Your task to perform on an android device: search for starred emails in the gmail app Image 0: 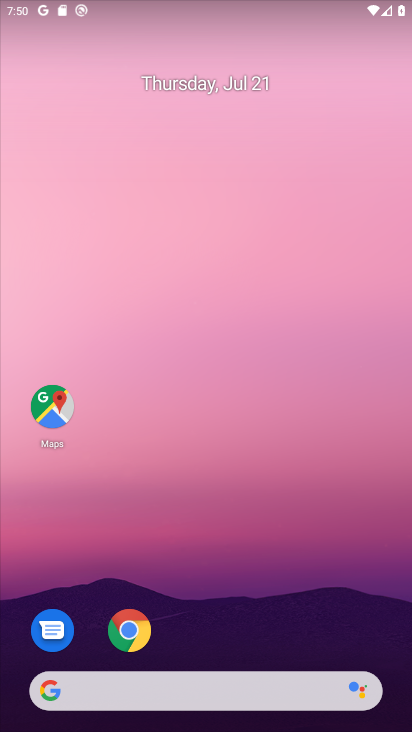
Step 0: drag from (232, 674) to (322, 522)
Your task to perform on an android device: search for starred emails in the gmail app Image 1: 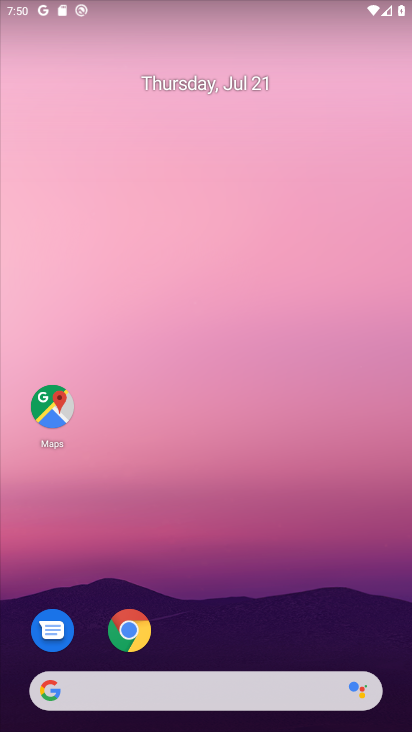
Step 1: drag from (253, 660) to (229, 6)
Your task to perform on an android device: search for starred emails in the gmail app Image 2: 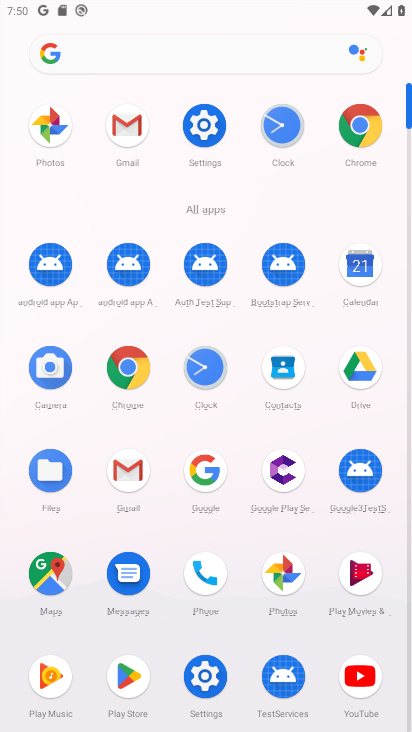
Step 2: click (135, 468)
Your task to perform on an android device: search for starred emails in the gmail app Image 3: 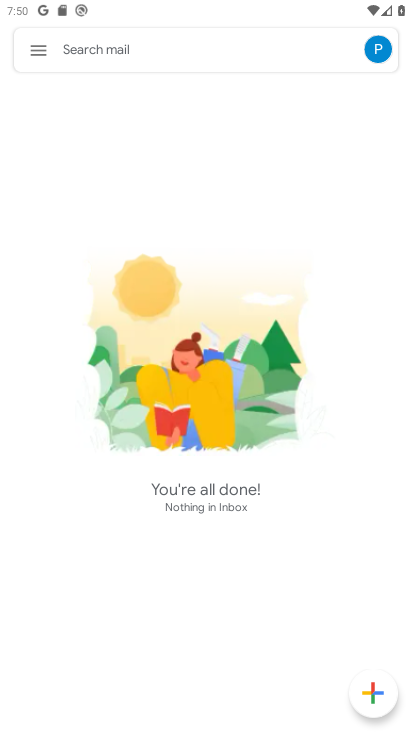
Step 3: click (36, 60)
Your task to perform on an android device: search for starred emails in the gmail app Image 4: 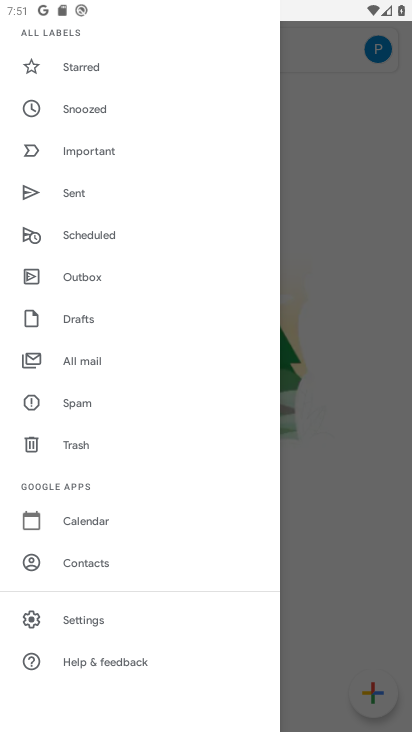
Step 4: drag from (92, 168) to (89, 641)
Your task to perform on an android device: search for starred emails in the gmail app Image 5: 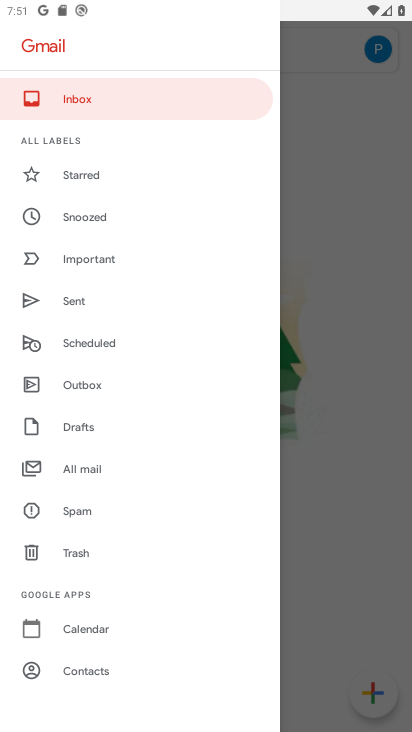
Step 5: click (75, 183)
Your task to perform on an android device: search for starred emails in the gmail app Image 6: 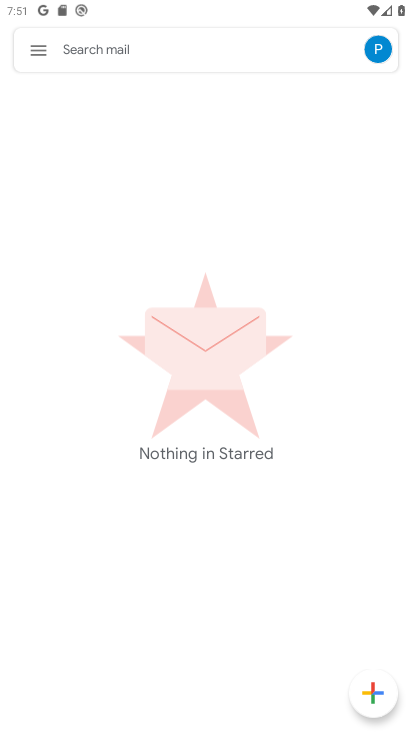
Step 6: task complete